Your task to perform on an android device: Open calendar and show me the third week of next month Image 0: 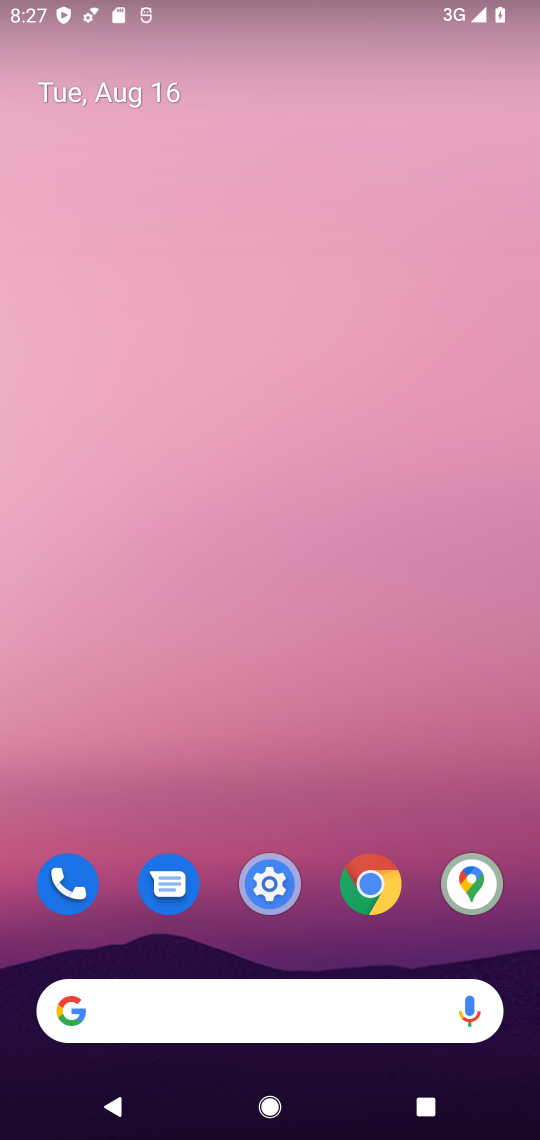
Step 0: drag from (514, 853) to (497, 176)
Your task to perform on an android device: Open calendar and show me the third week of next month Image 1: 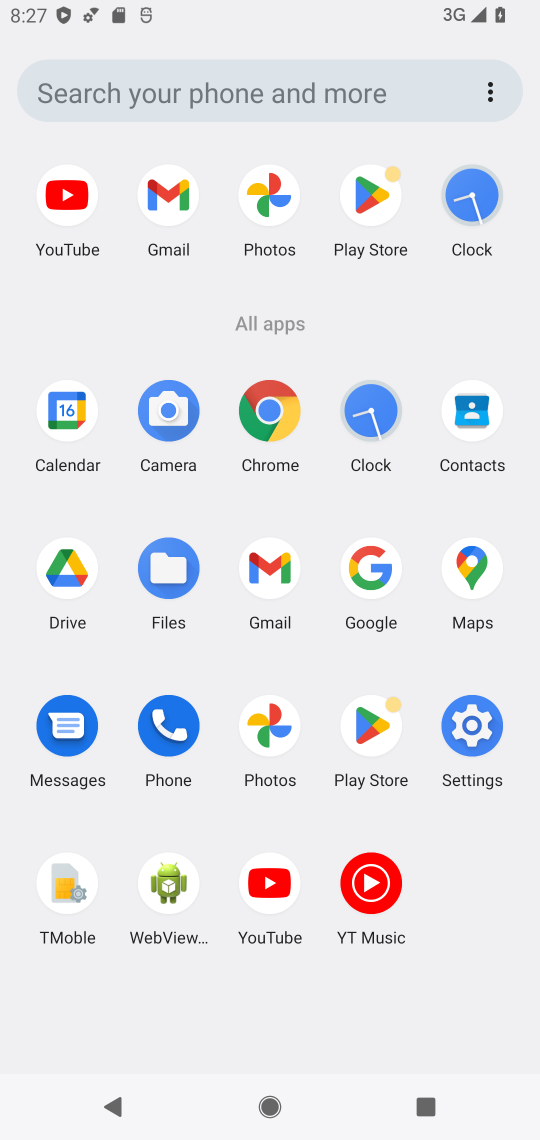
Step 1: click (62, 412)
Your task to perform on an android device: Open calendar and show me the third week of next month Image 2: 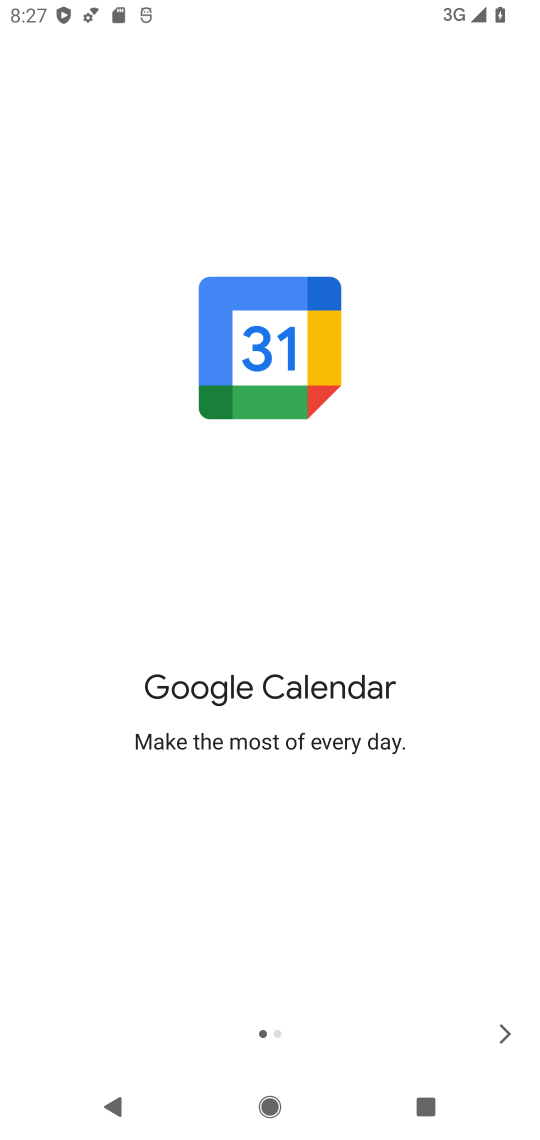
Step 2: click (498, 1027)
Your task to perform on an android device: Open calendar and show me the third week of next month Image 3: 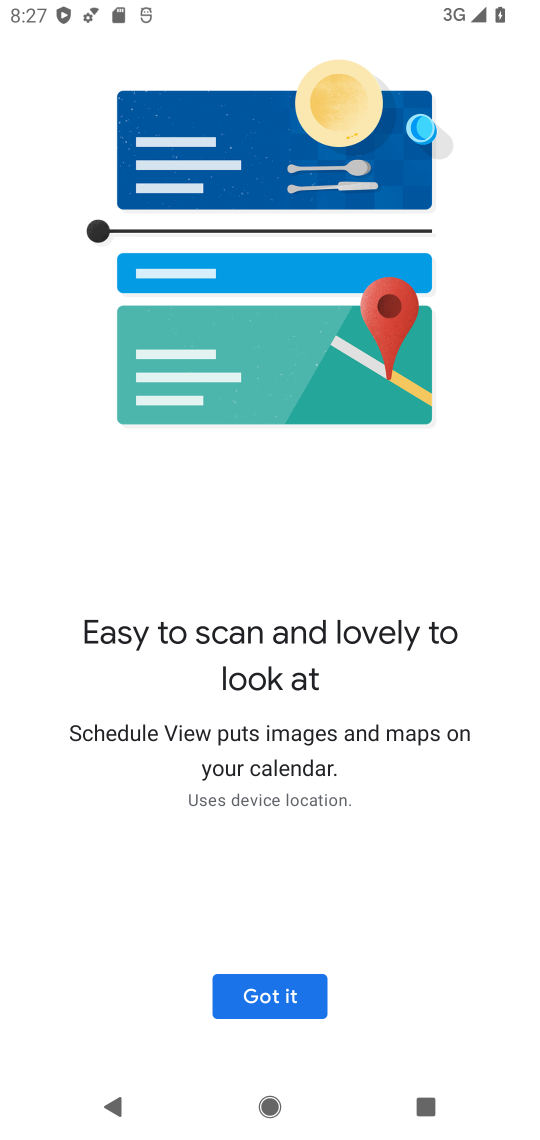
Step 3: click (270, 998)
Your task to perform on an android device: Open calendar and show me the third week of next month Image 4: 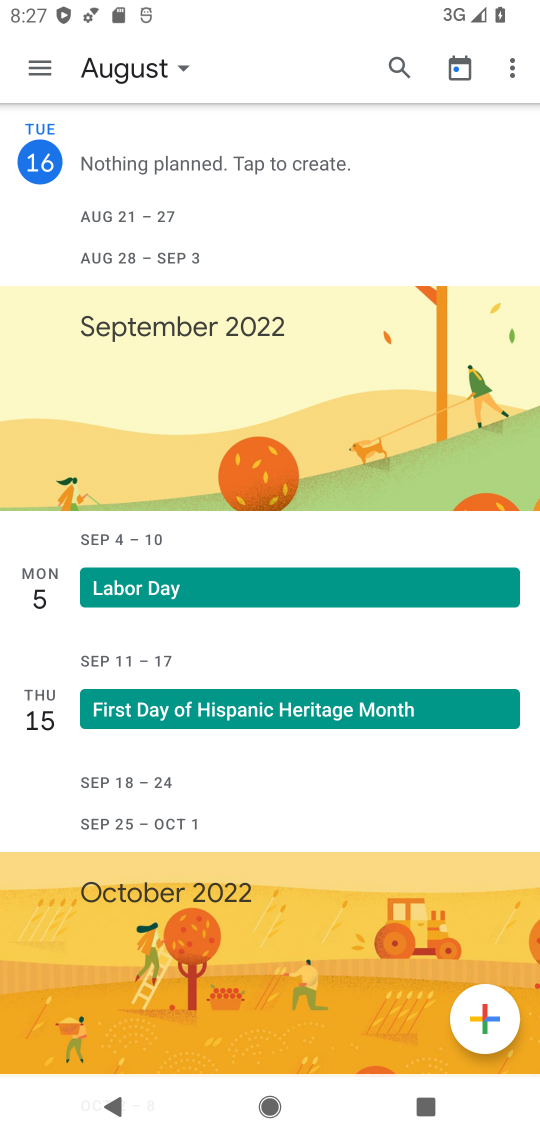
Step 4: click (35, 63)
Your task to perform on an android device: Open calendar and show me the third week of next month Image 5: 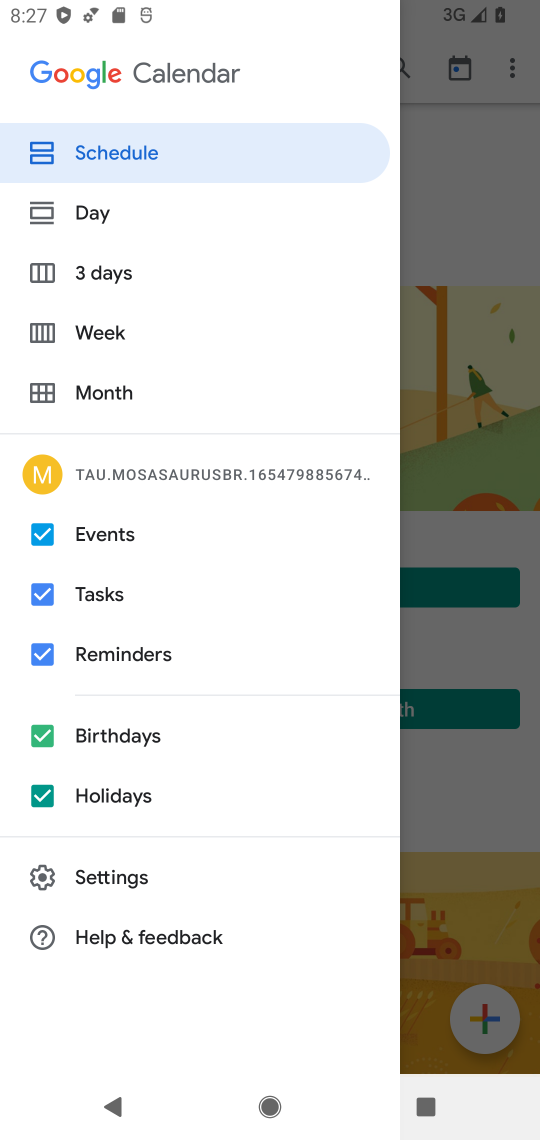
Step 5: click (103, 324)
Your task to perform on an android device: Open calendar and show me the third week of next month Image 6: 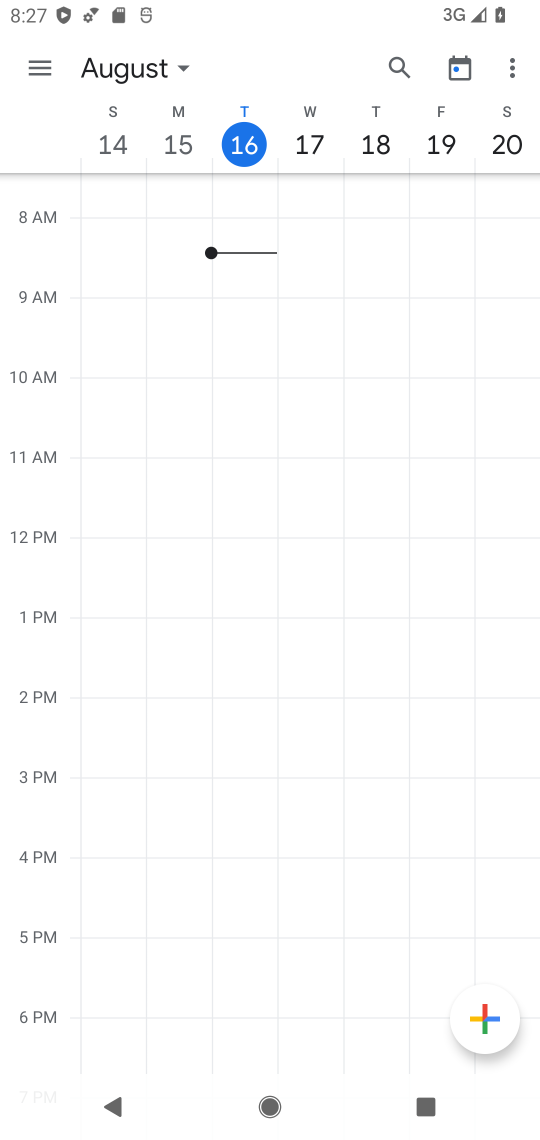
Step 6: click (178, 74)
Your task to perform on an android device: Open calendar and show me the third week of next month Image 7: 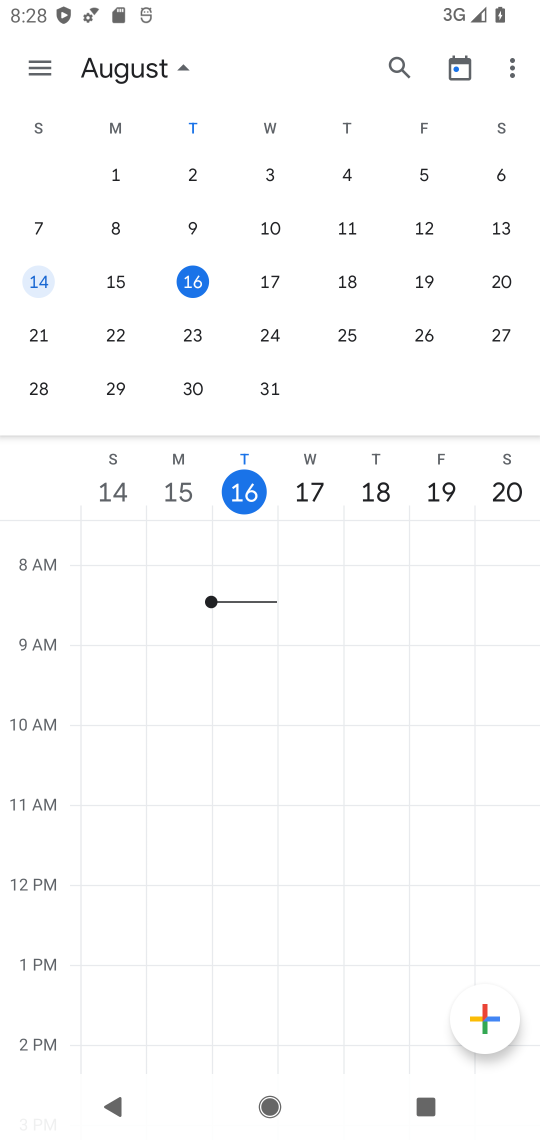
Step 7: drag from (496, 281) to (64, 271)
Your task to perform on an android device: Open calendar and show me the third week of next month Image 8: 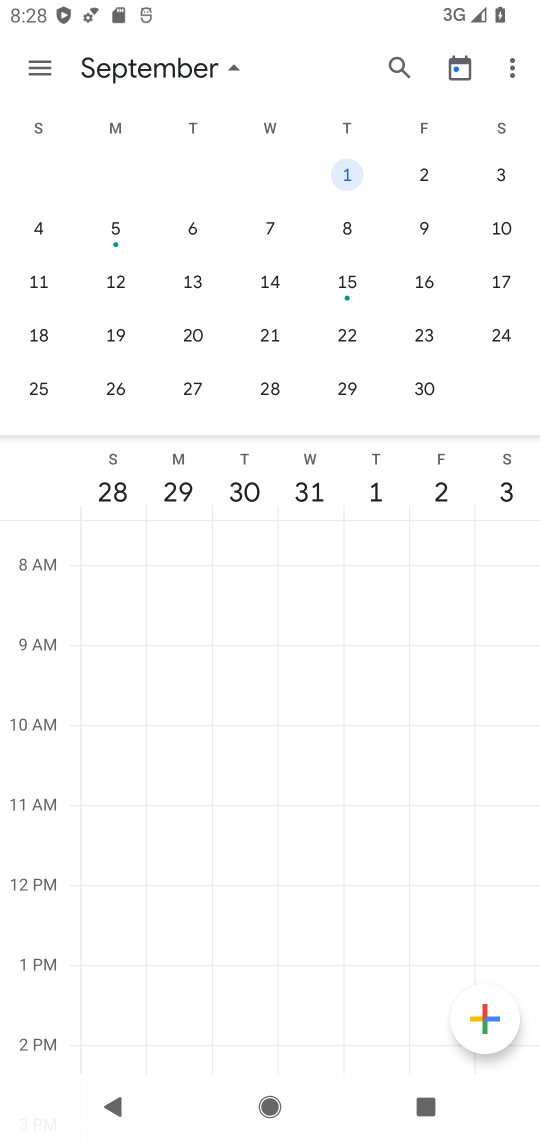
Step 8: click (42, 331)
Your task to perform on an android device: Open calendar and show me the third week of next month Image 9: 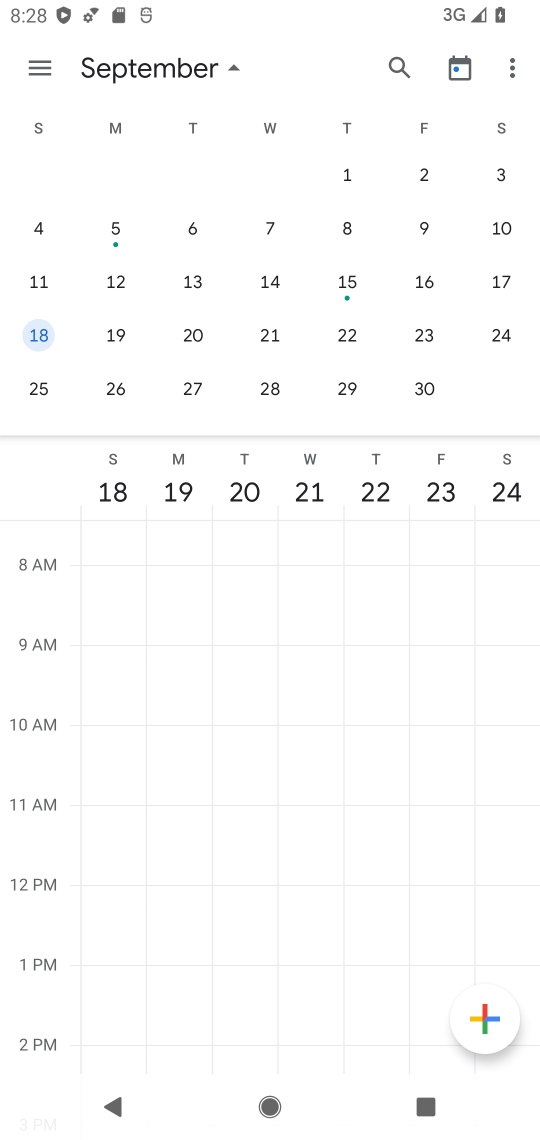
Step 9: task complete